Your task to perform on an android device: move a message to another label in the gmail app Image 0: 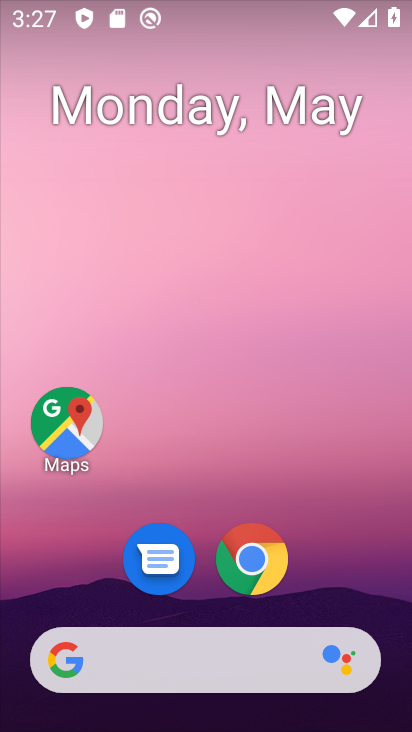
Step 0: click (214, 247)
Your task to perform on an android device: move a message to another label in the gmail app Image 1: 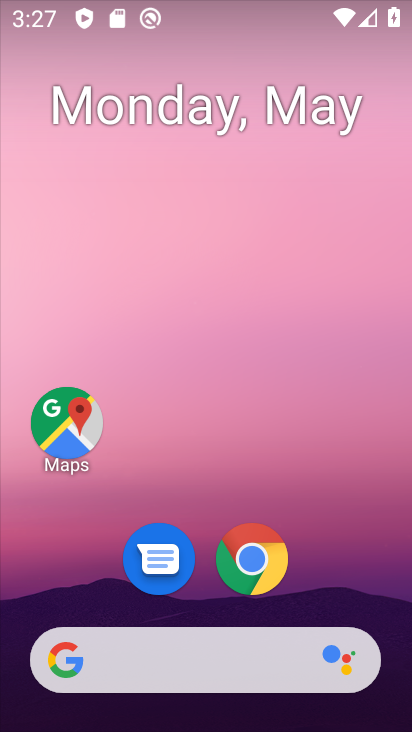
Step 1: drag from (332, 638) to (231, 267)
Your task to perform on an android device: move a message to another label in the gmail app Image 2: 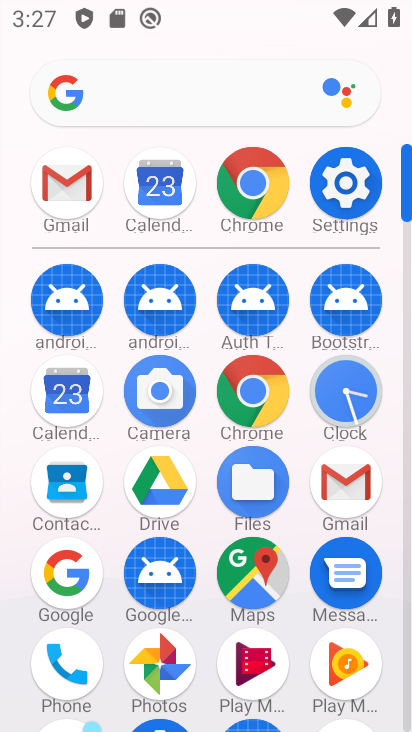
Step 2: click (356, 471)
Your task to perform on an android device: move a message to another label in the gmail app Image 3: 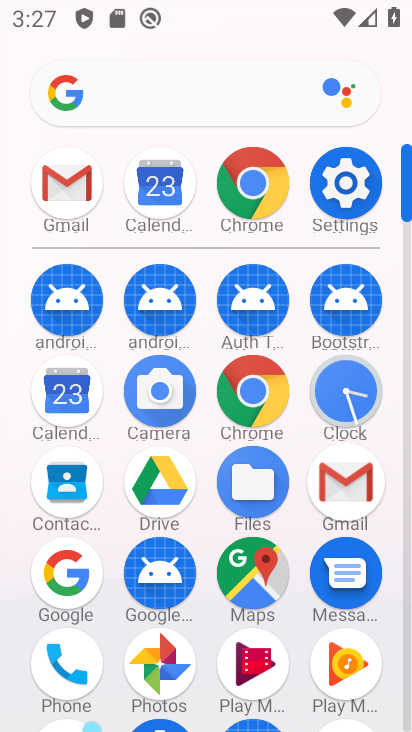
Step 3: click (347, 472)
Your task to perform on an android device: move a message to another label in the gmail app Image 4: 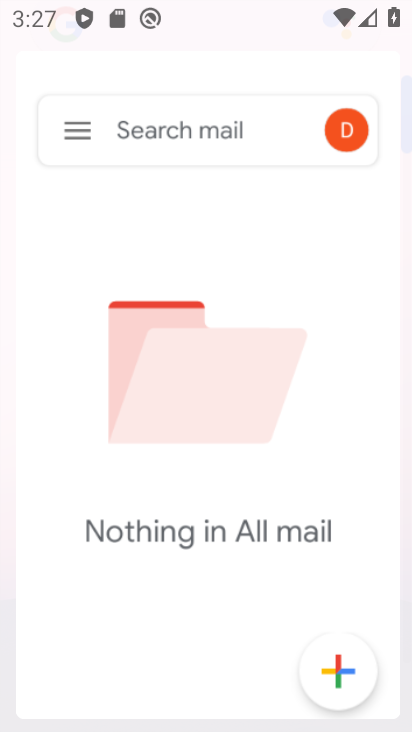
Step 4: click (347, 472)
Your task to perform on an android device: move a message to another label in the gmail app Image 5: 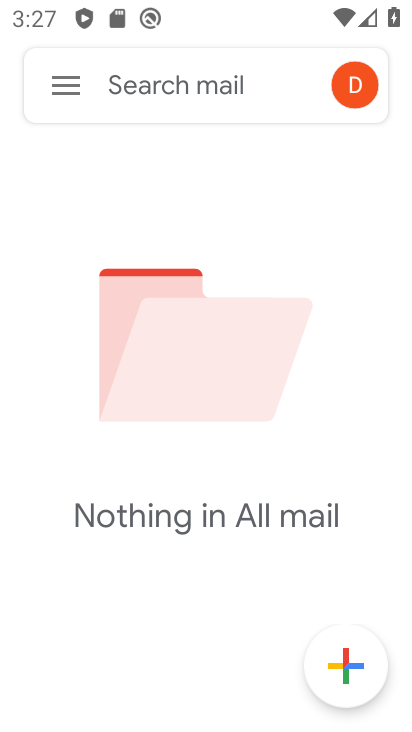
Step 5: click (360, 468)
Your task to perform on an android device: move a message to another label in the gmail app Image 6: 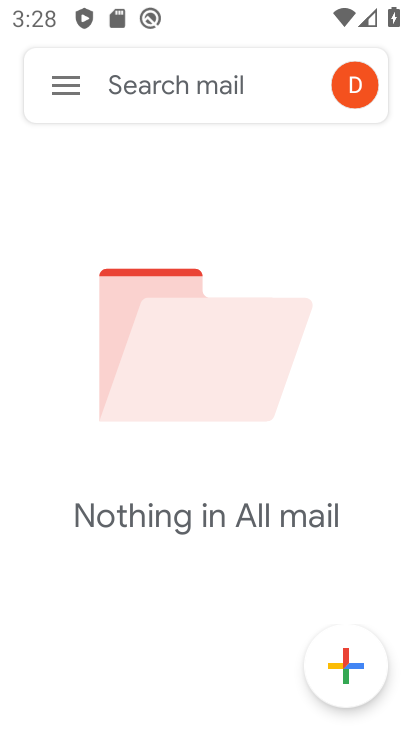
Step 6: task complete